Your task to perform on an android device: open app "AliExpress" (install if not already installed) and enter user name: "orangutan@inbox.com" and password: "Lyons" Image 0: 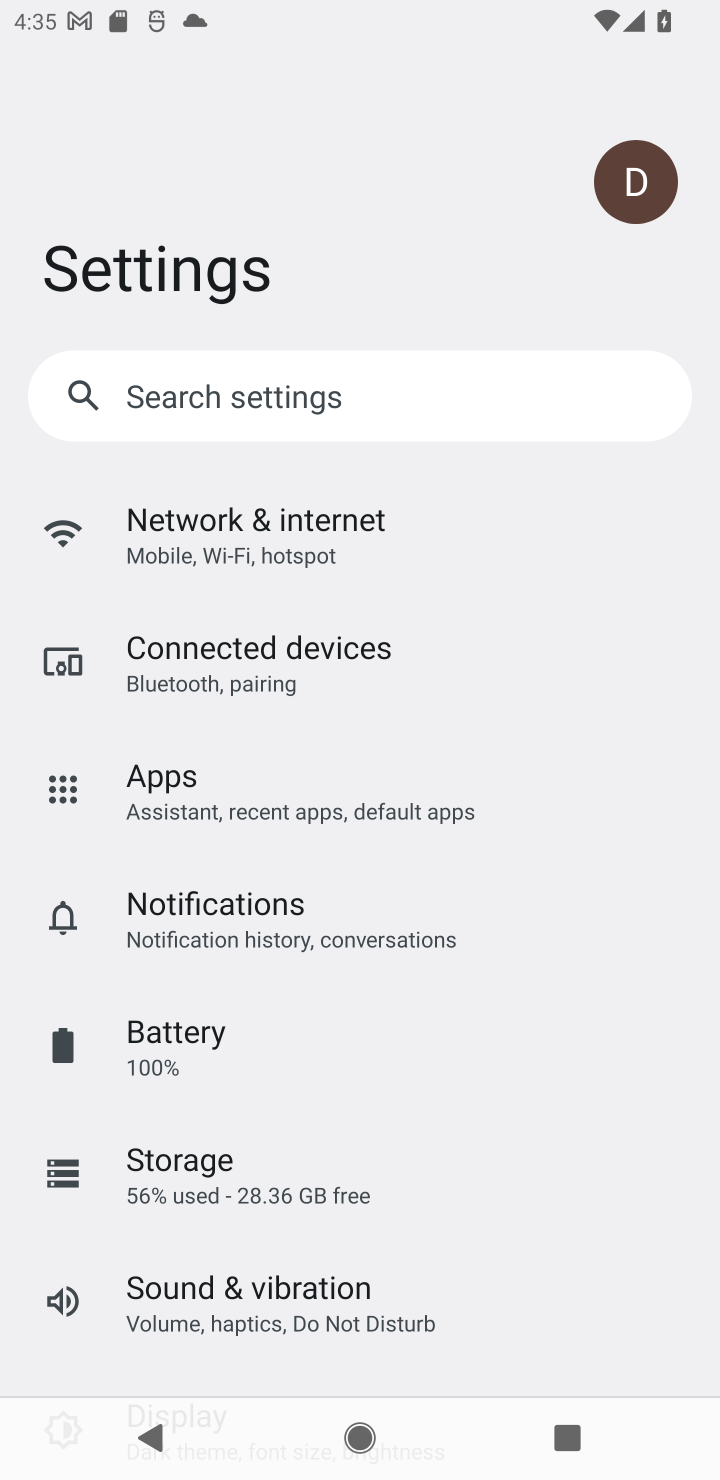
Step 0: press home button
Your task to perform on an android device: open app "AliExpress" (install if not already installed) and enter user name: "orangutan@inbox.com" and password: "Lyons" Image 1: 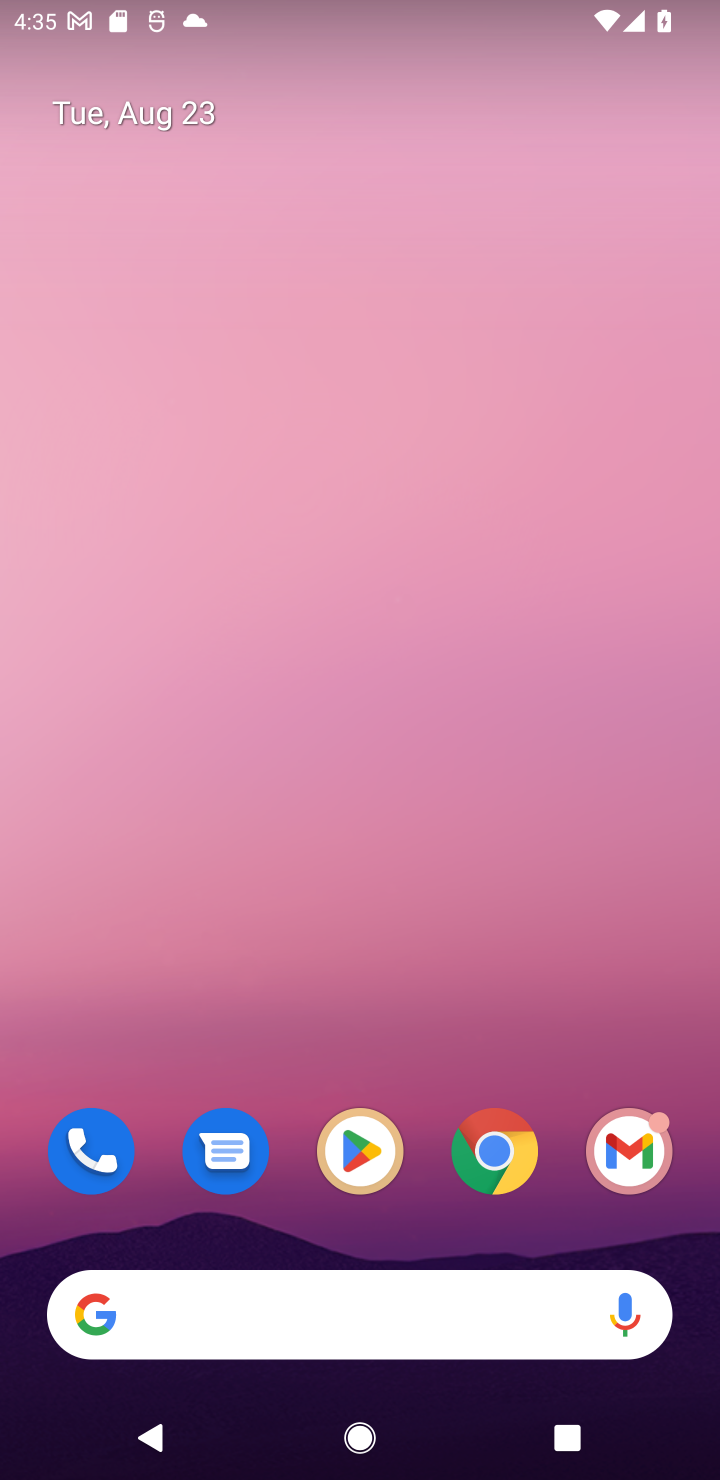
Step 1: click (357, 1149)
Your task to perform on an android device: open app "AliExpress" (install if not already installed) and enter user name: "orangutan@inbox.com" and password: "Lyons" Image 2: 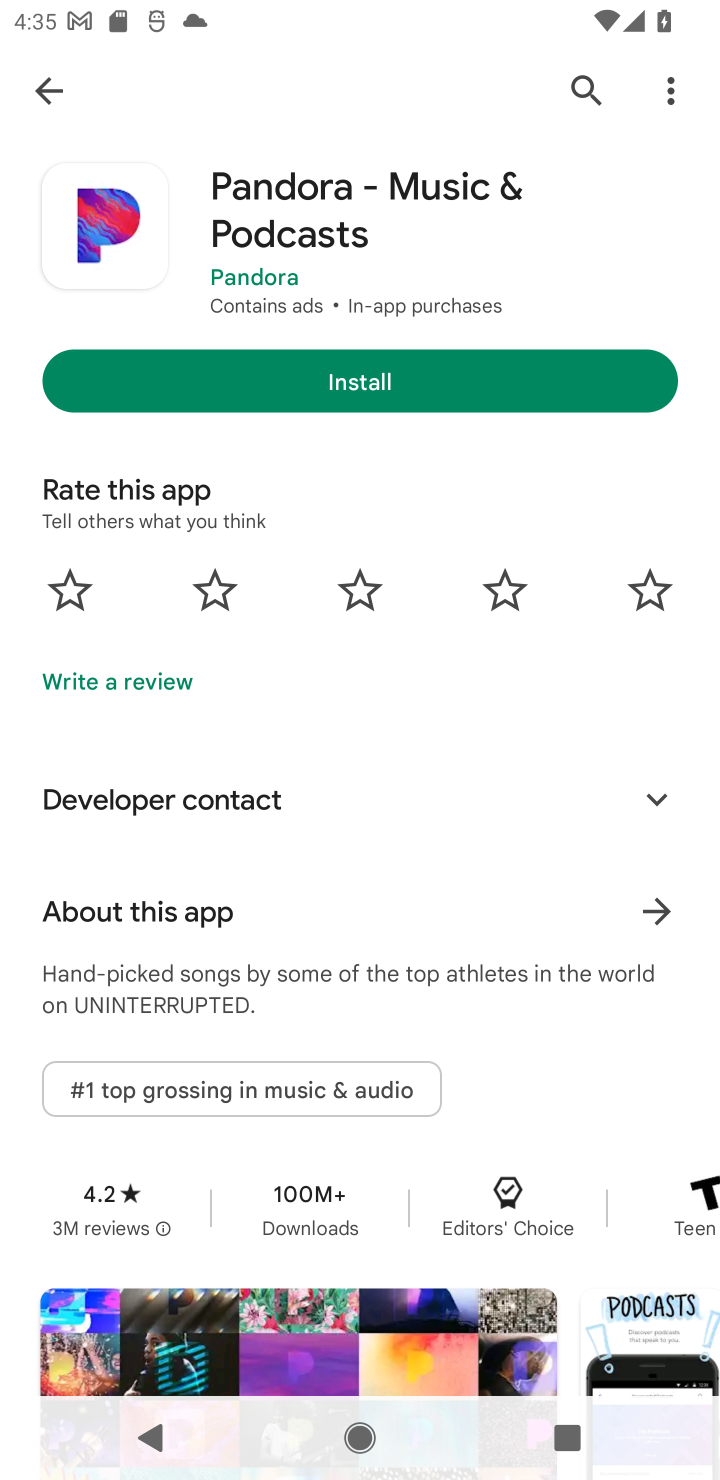
Step 2: click (578, 93)
Your task to perform on an android device: open app "AliExpress" (install if not already installed) and enter user name: "orangutan@inbox.com" and password: "Lyons" Image 3: 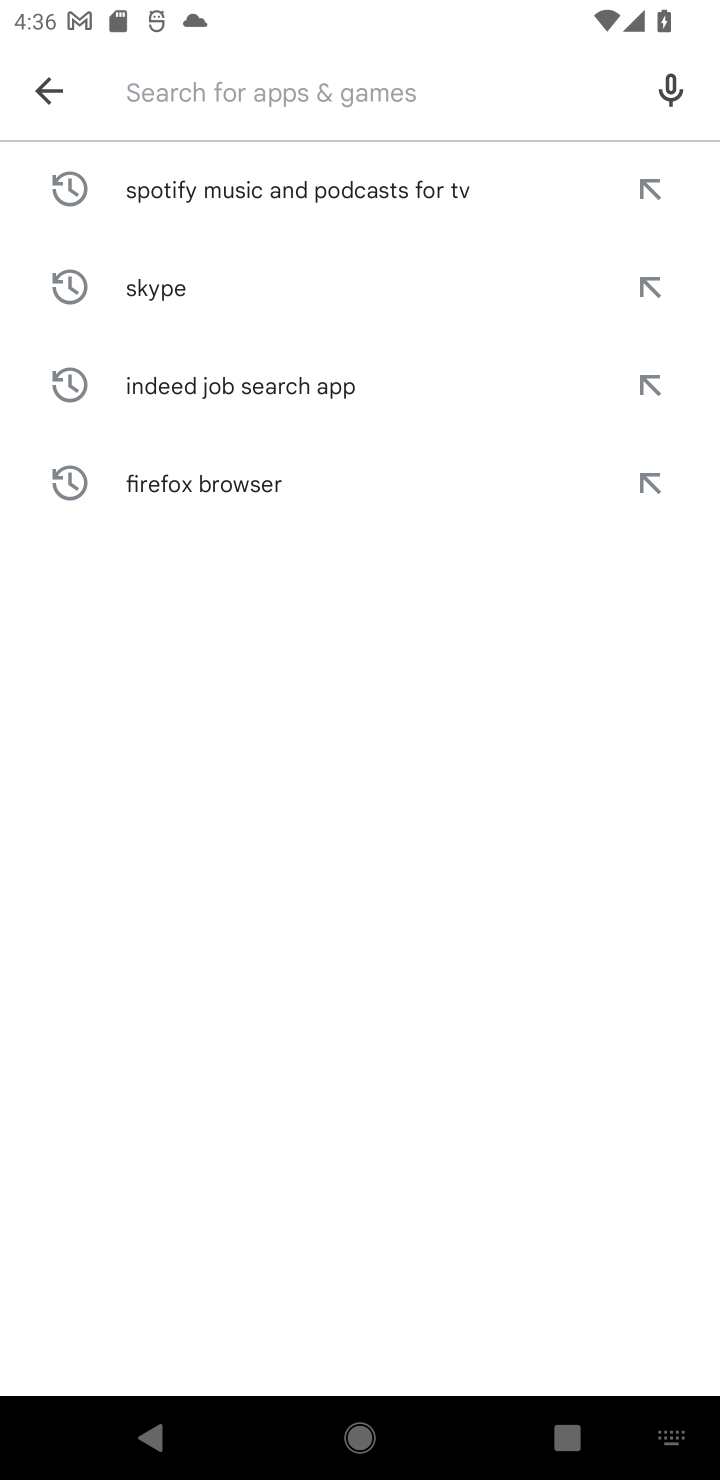
Step 3: type "AliExpress"
Your task to perform on an android device: open app "AliExpress" (install if not already installed) and enter user name: "orangutan@inbox.com" and password: "Lyons" Image 4: 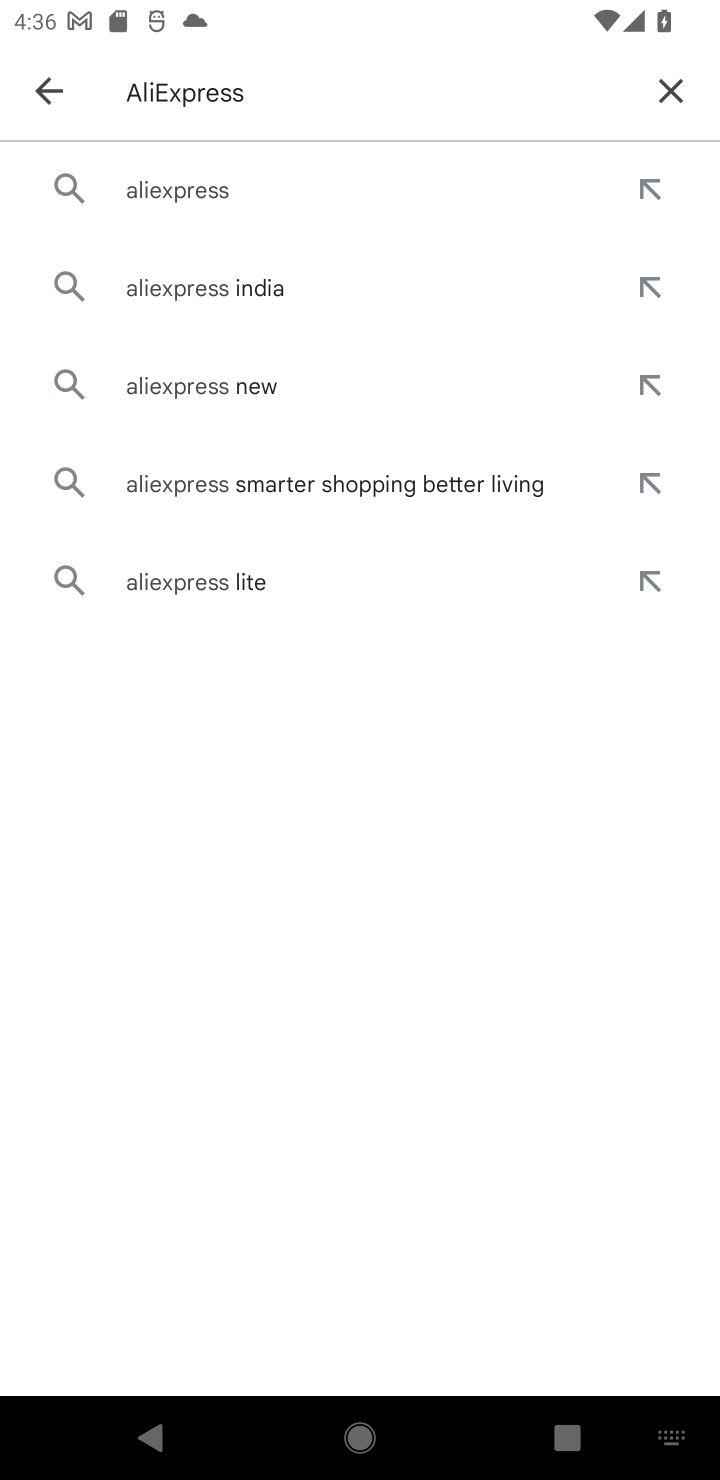
Step 4: click (166, 178)
Your task to perform on an android device: open app "AliExpress" (install if not already installed) and enter user name: "orangutan@inbox.com" and password: "Lyons" Image 5: 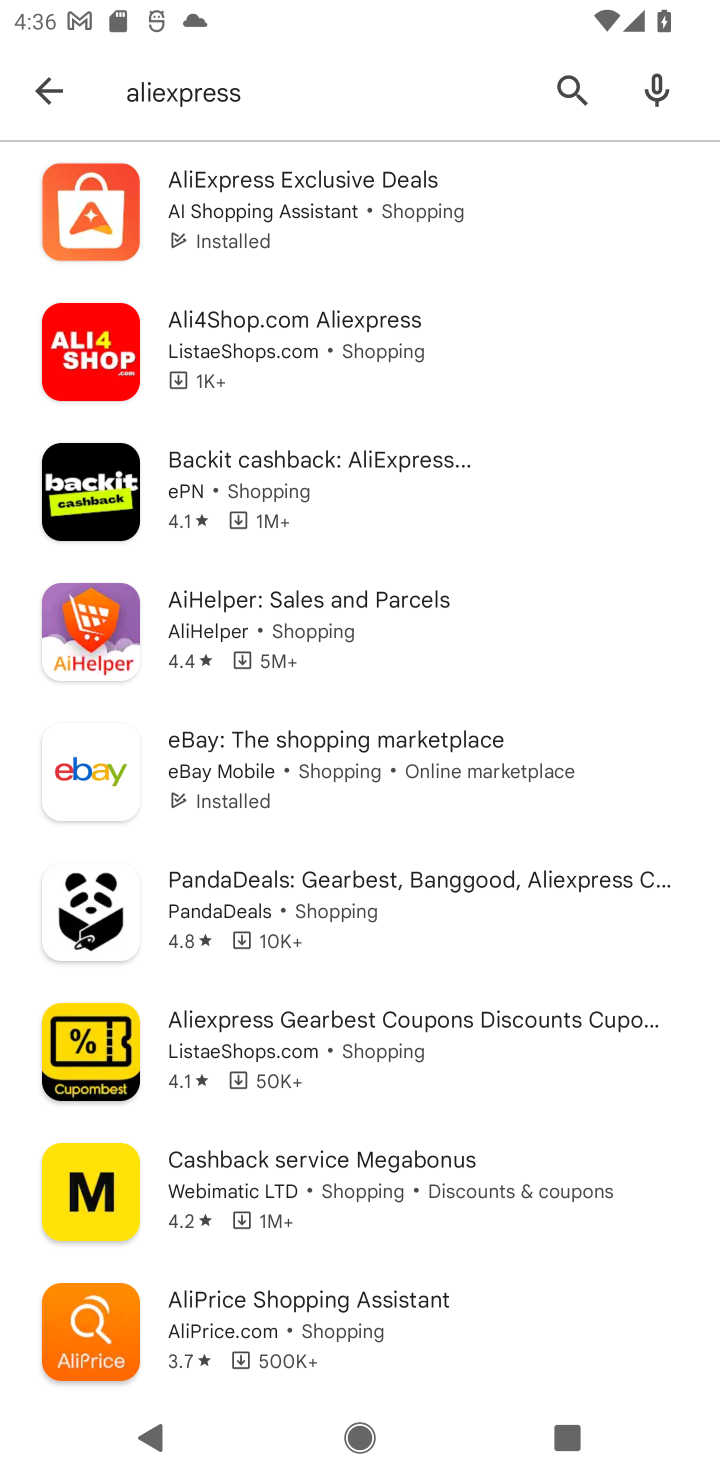
Step 5: click (164, 199)
Your task to perform on an android device: open app "AliExpress" (install if not already installed) and enter user name: "orangutan@inbox.com" and password: "Lyons" Image 6: 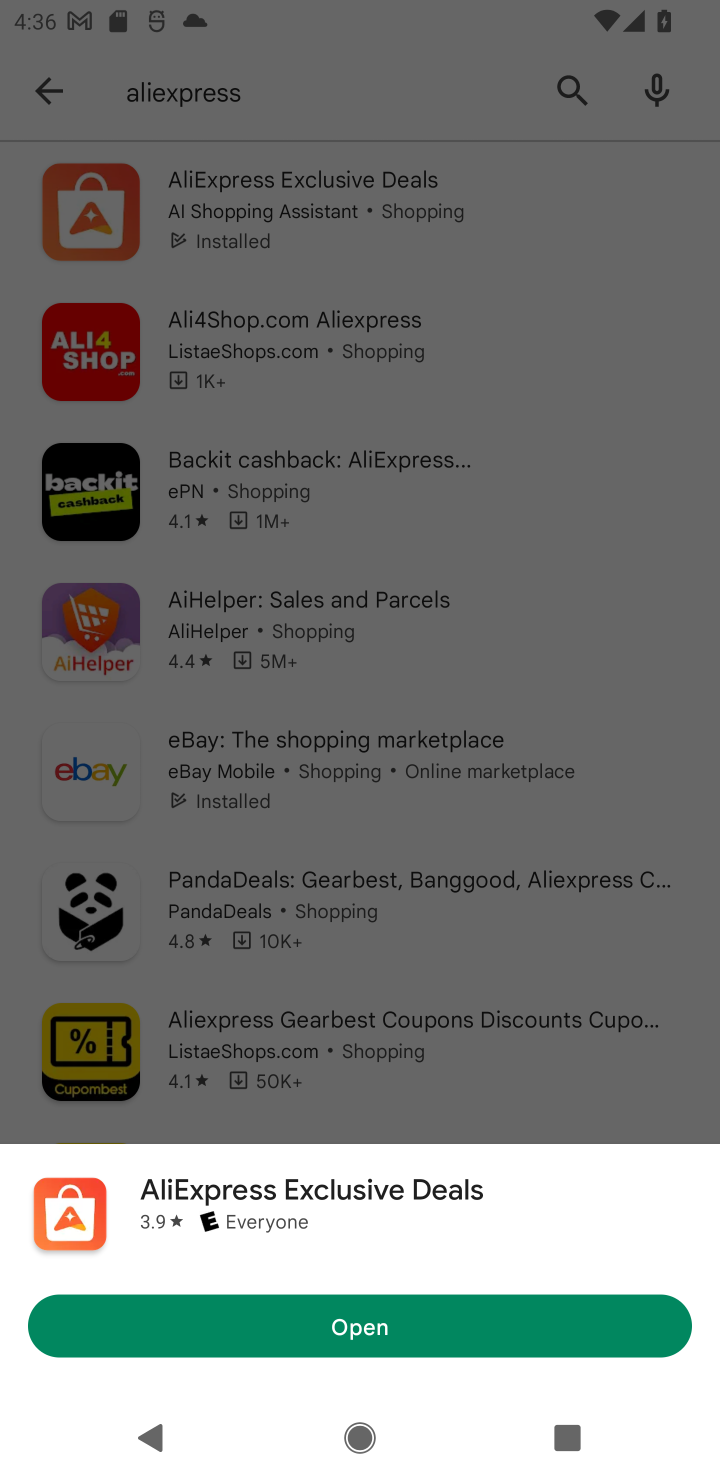
Step 6: click (387, 1335)
Your task to perform on an android device: open app "AliExpress" (install if not already installed) and enter user name: "orangutan@inbox.com" and password: "Lyons" Image 7: 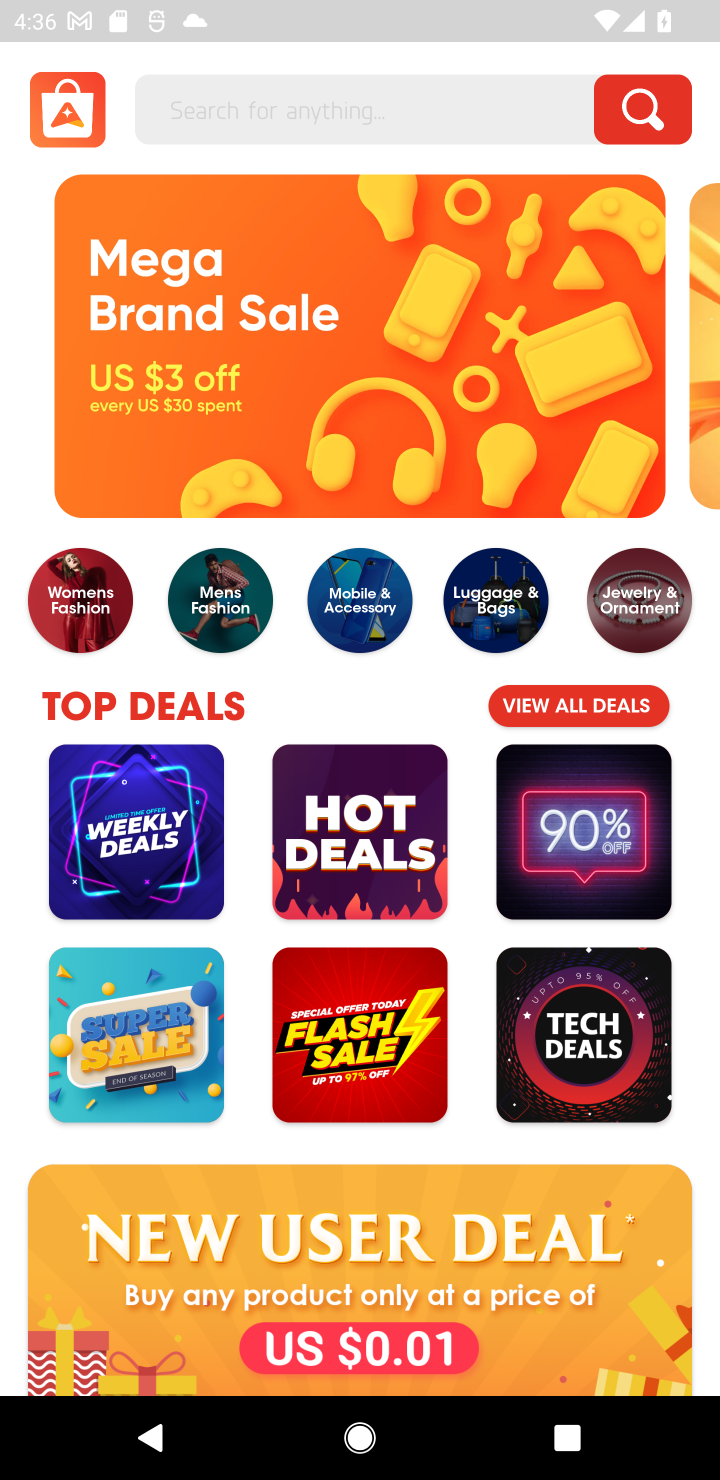
Step 7: task complete